Your task to perform on an android device: snooze an email in the gmail app Image 0: 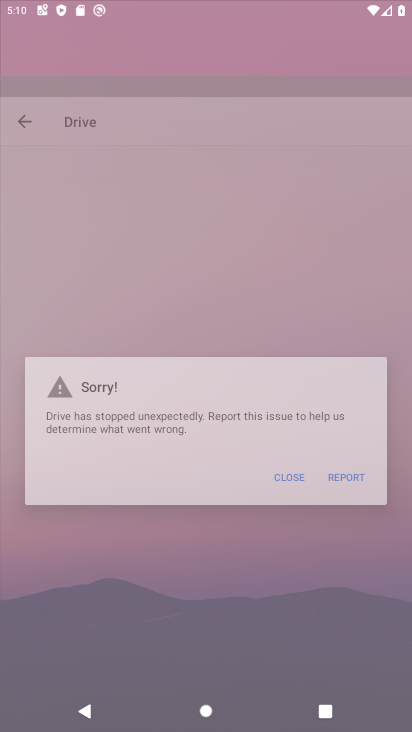
Step 0: press home button
Your task to perform on an android device: snooze an email in the gmail app Image 1: 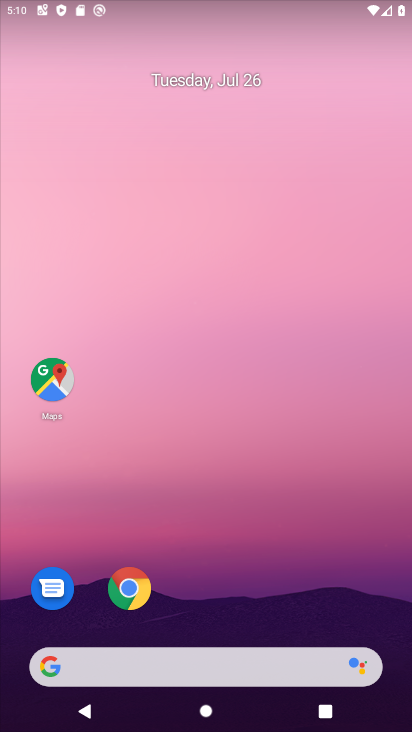
Step 1: drag from (246, 613) to (249, 39)
Your task to perform on an android device: snooze an email in the gmail app Image 2: 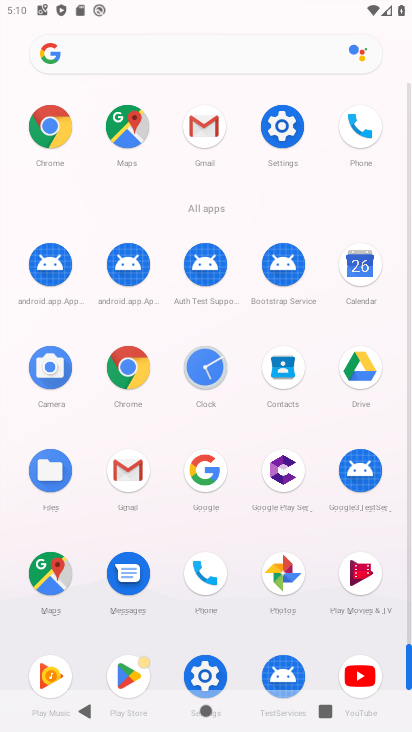
Step 2: click (136, 481)
Your task to perform on an android device: snooze an email in the gmail app Image 3: 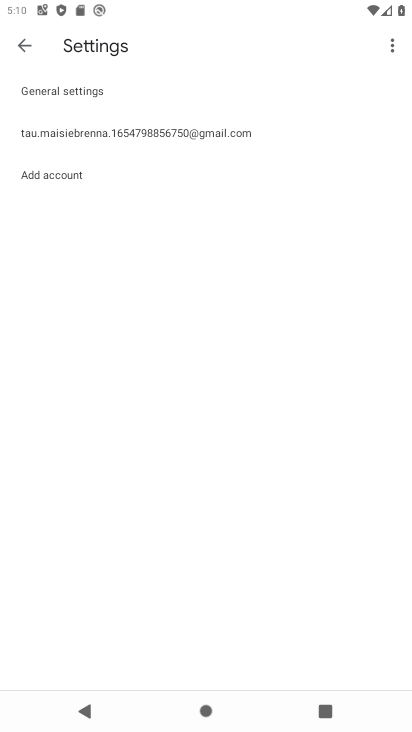
Step 3: click (28, 49)
Your task to perform on an android device: snooze an email in the gmail app Image 4: 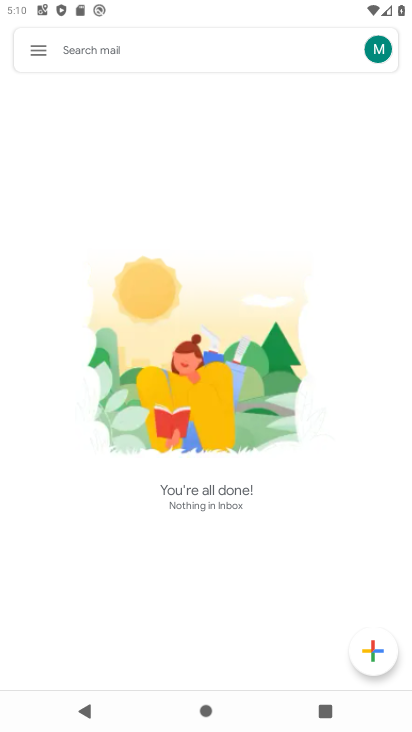
Step 4: click (37, 51)
Your task to perform on an android device: snooze an email in the gmail app Image 5: 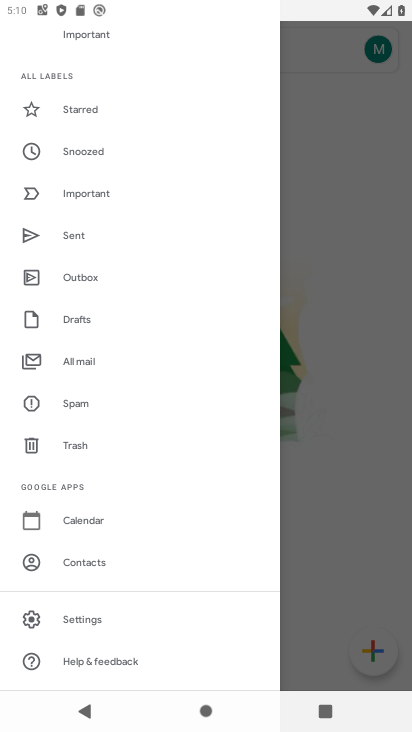
Step 5: click (108, 155)
Your task to perform on an android device: snooze an email in the gmail app Image 6: 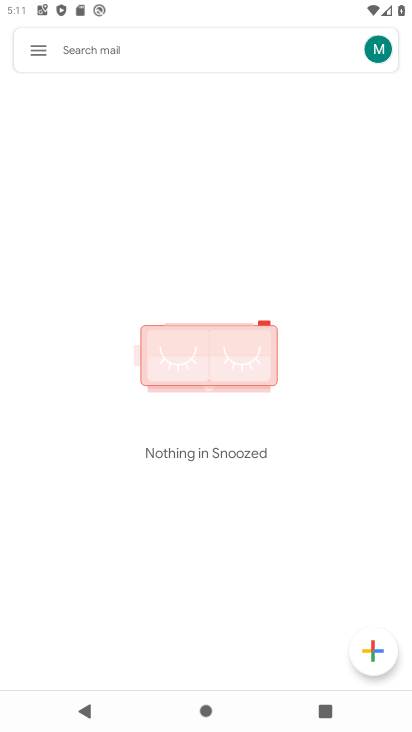
Step 6: task complete